Your task to perform on an android device: toggle sleep mode Image 0: 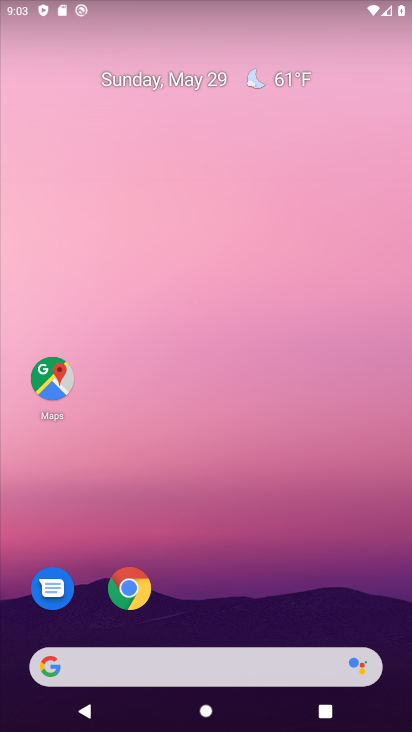
Step 0: drag from (281, 459) to (248, 83)
Your task to perform on an android device: toggle sleep mode Image 1: 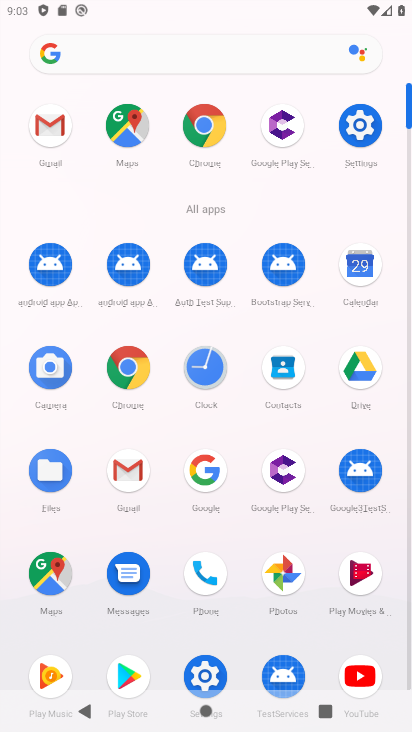
Step 1: click (366, 128)
Your task to perform on an android device: toggle sleep mode Image 2: 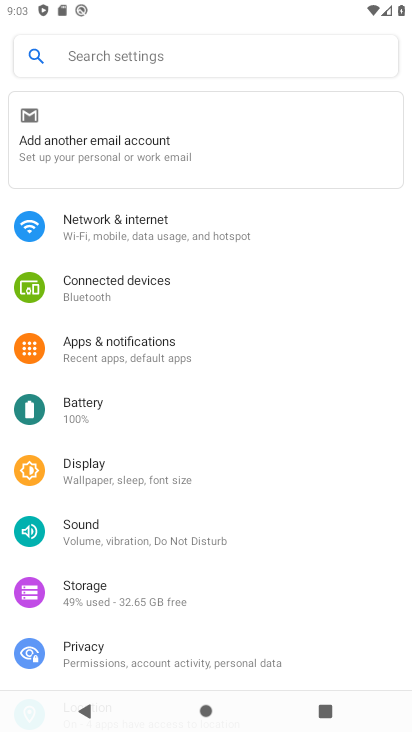
Step 2: click (131, 473)
Your task to perform on an android device: toggle sleep mode Image 3: 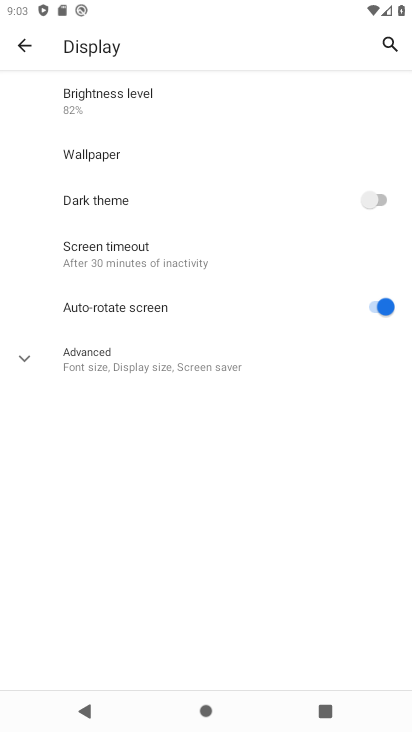
Step 3: click (103, 256)
Your task to perform on an android device: toggle sleep mode Image 4: 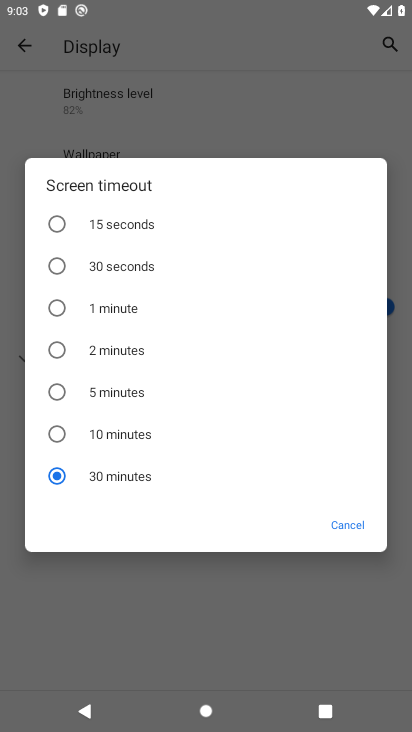
Step 4: click (108, 428)
Your task to perform on an android device: toggle sleep mode Image 5: 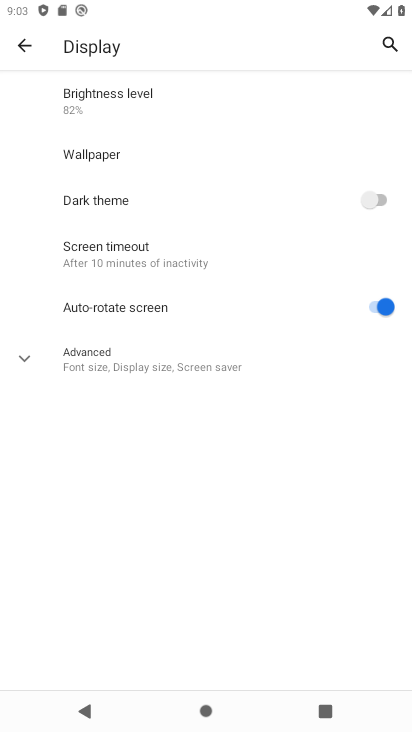
Step 5: task complete